Your task to perform on an android device: Open display settings Image 0: 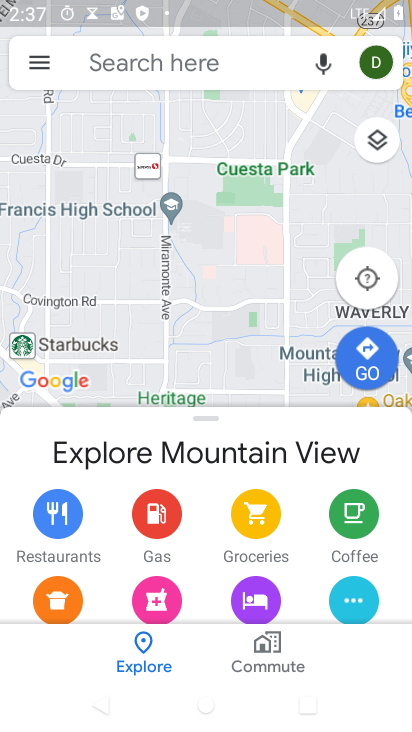
Step 0: press home button
Your task to perform on an android device: Open display settings Image 1: 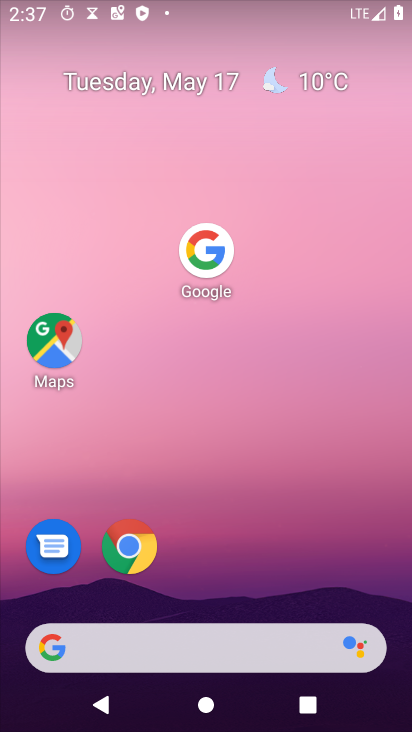
Step 1: drag from (152, 650) to (258, 58)
Your task to perform on an android device: Open display settings Image 2: 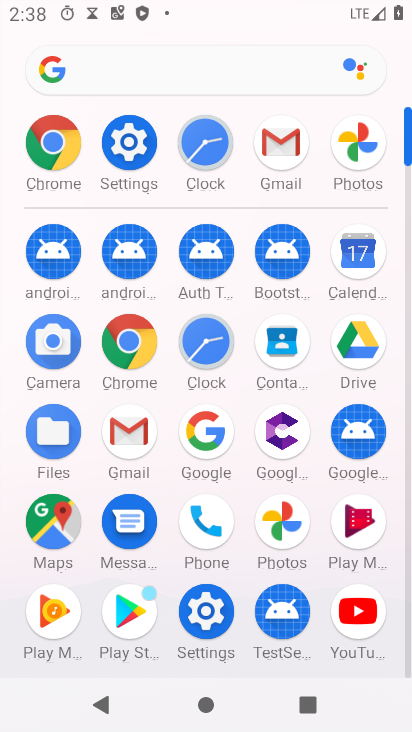
Step 2: click (130, 149)
Your task to perform on an android device: Open display settings Image 3: 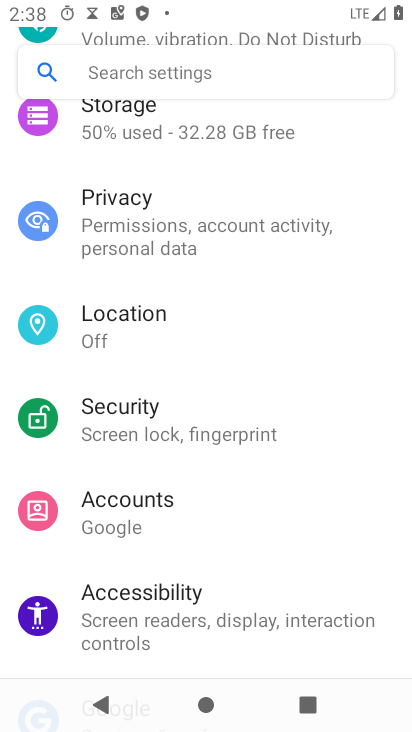
Step 3: drag from (344, 290) to (378, 621)
Your task to perform on an android device: Open display settings Image 4: 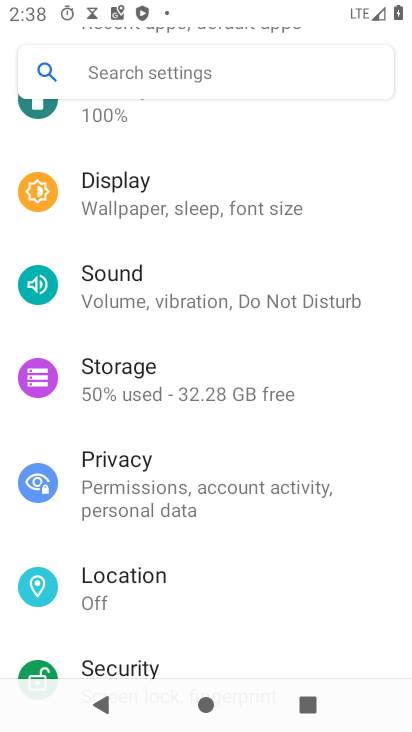
Step 4: click (135, 196)
Your task to perform on an android device: Open display settings Image 5: 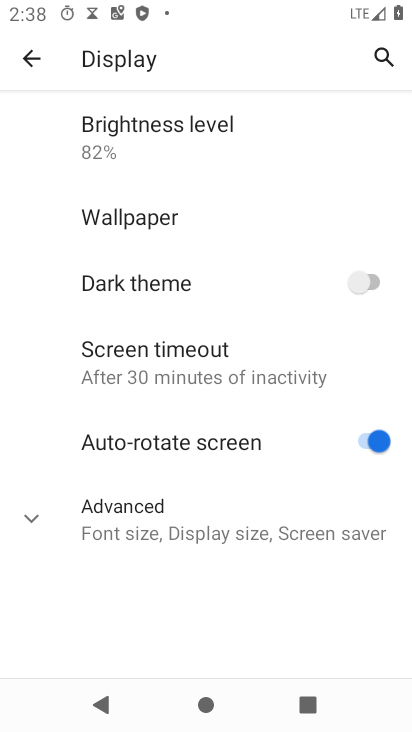
Step 5: task complete